Your task to perform on an android device: Check the news Image 0: 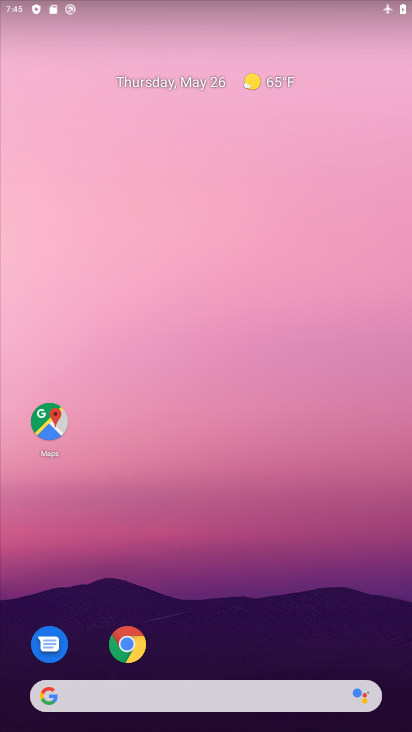
Step 0: drag from (188, 614) to (204, 115)
Your task to perform on an android device: Check the news Image 1: 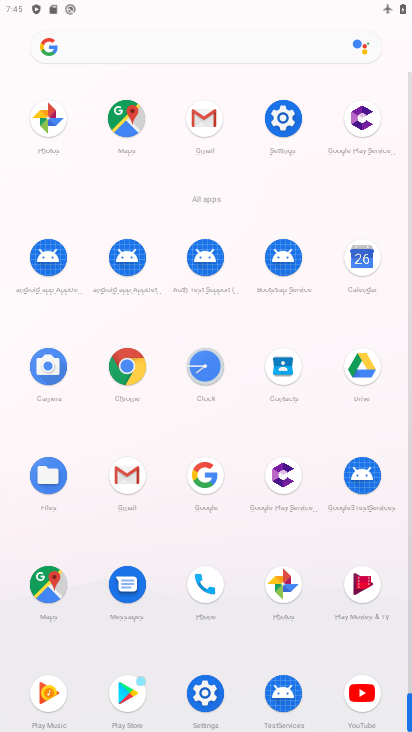
Step 1: drag from (259, 610) to (264, 155)
Your task to perform on an android device: Check the news Image 2: 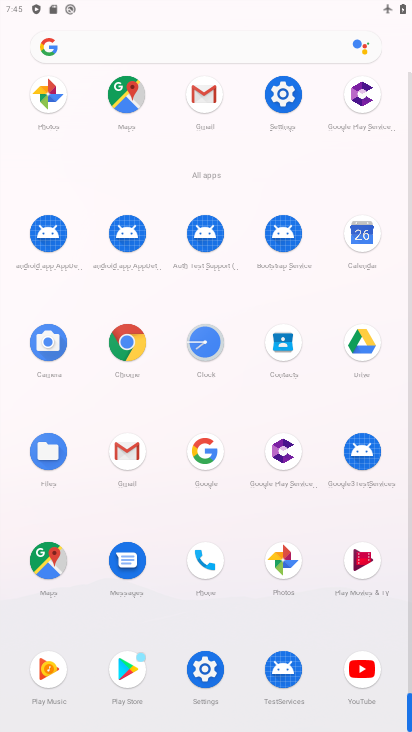
Step 2: click (190, 50)
Your task to perform on an android device: Check the news Image 3: 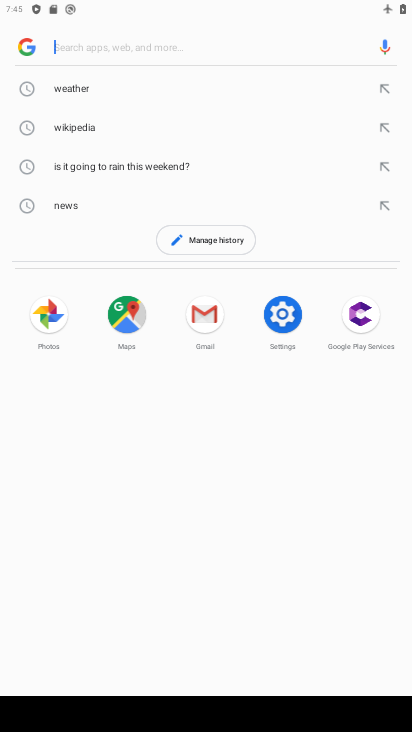
Step 3: click (86, 212)
Your task to perform on an android device: Check the news Image 4: 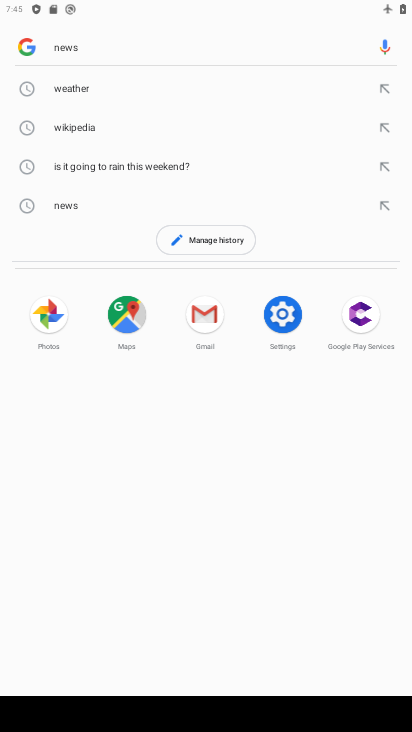
Step 4: task complete